Your task to perform on an android device: Go to Android settings Image 0: 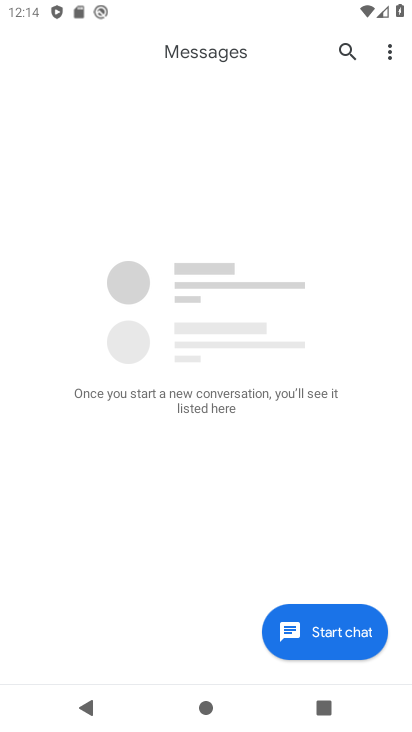
Step 0: press home button
Your task to perform on an android device: Go to Android settings Image 1: 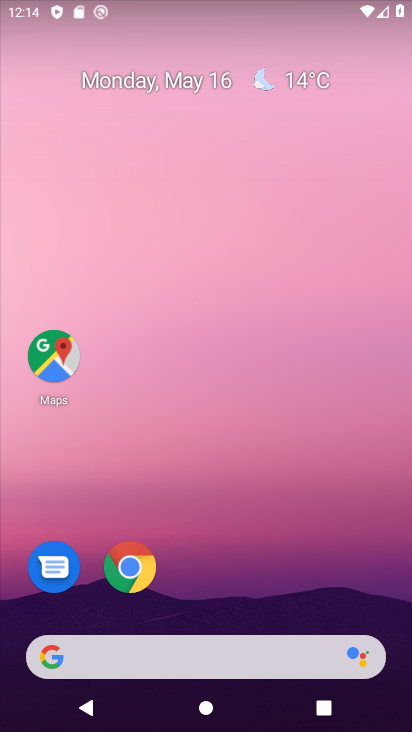
Step 1: drag from (230, 497) to (147, 73)
Your task to perform on an android device: Go to Android settings Image 2: 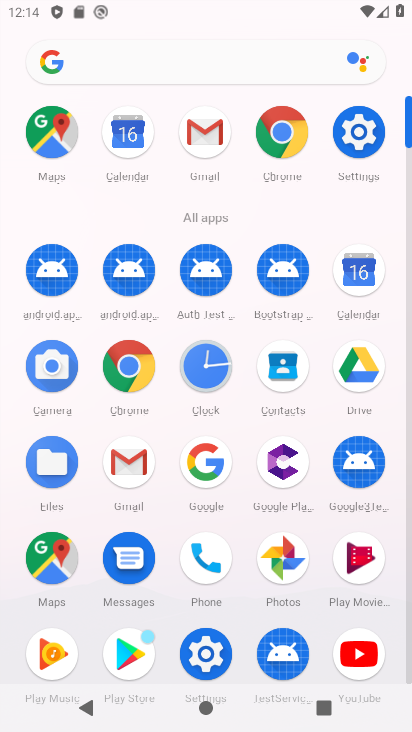
Step 2: click (352, 129)
Your task to perform on an android device: Go to Android settings Image 3: 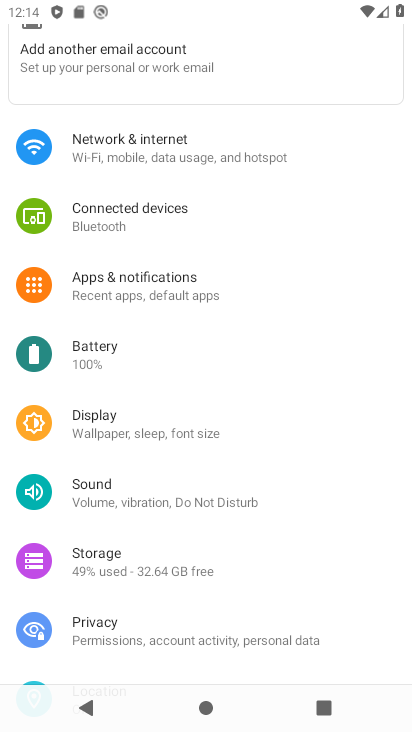
Step 3: task complete